Your task to perform on an android device: Open Google Image 0: 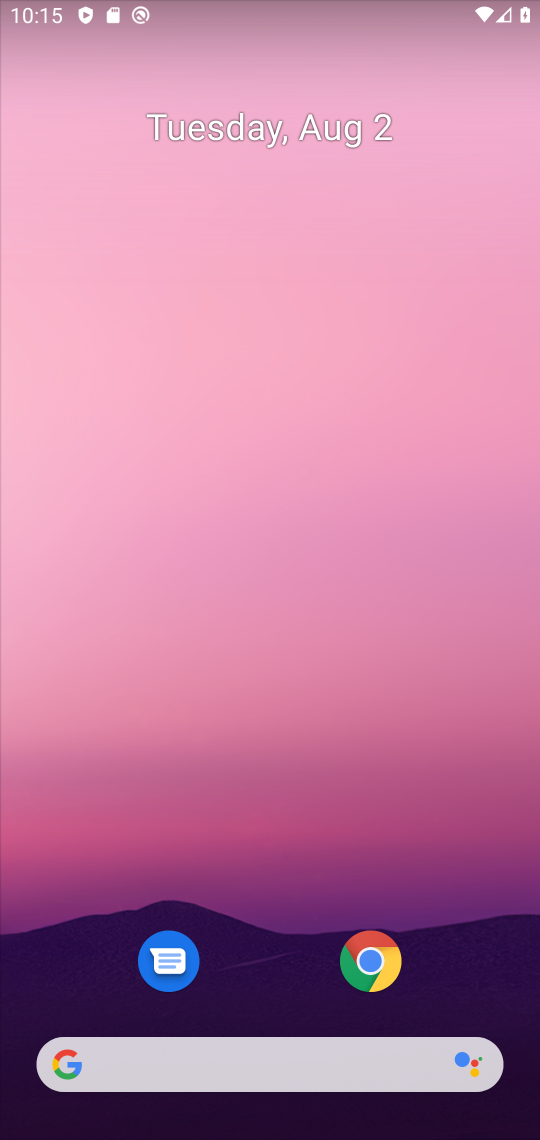
Step 0: drag from (247, 1001) to (262, 140)
Your task to perform on an android device: Open Google Image 1: 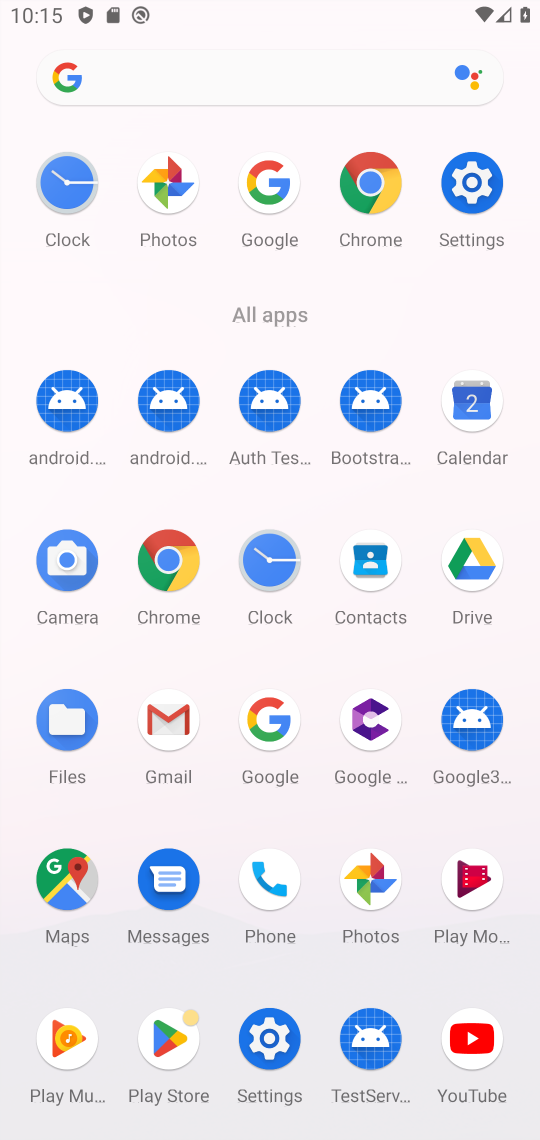
Step 1: click (267, 710)
Your task to perform on an android device: Open Google Image 2: 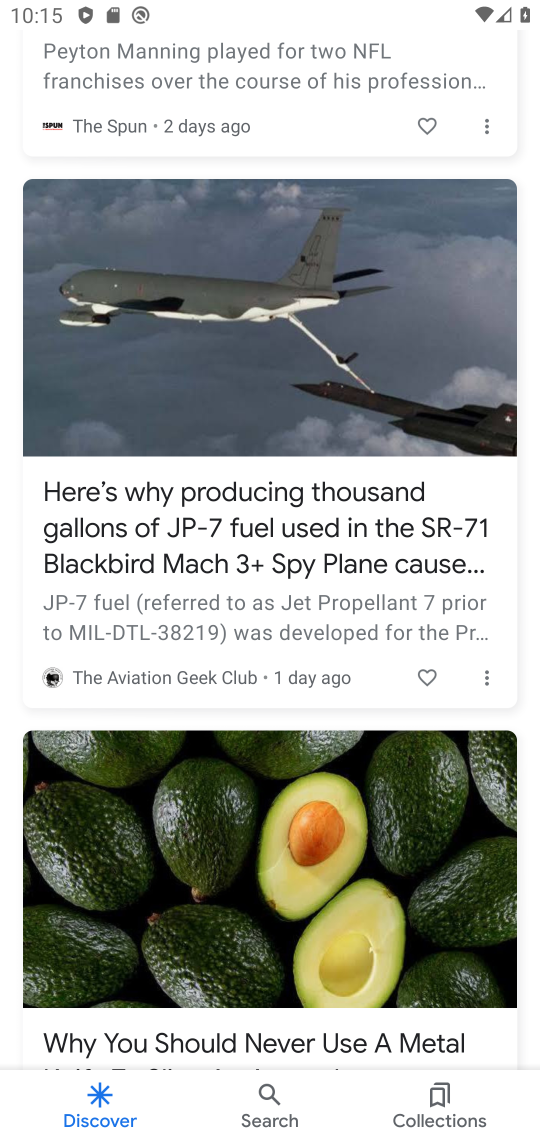
Step 2: click (261, 1101)
Your task to perform on an android device: Open Google Image 3: 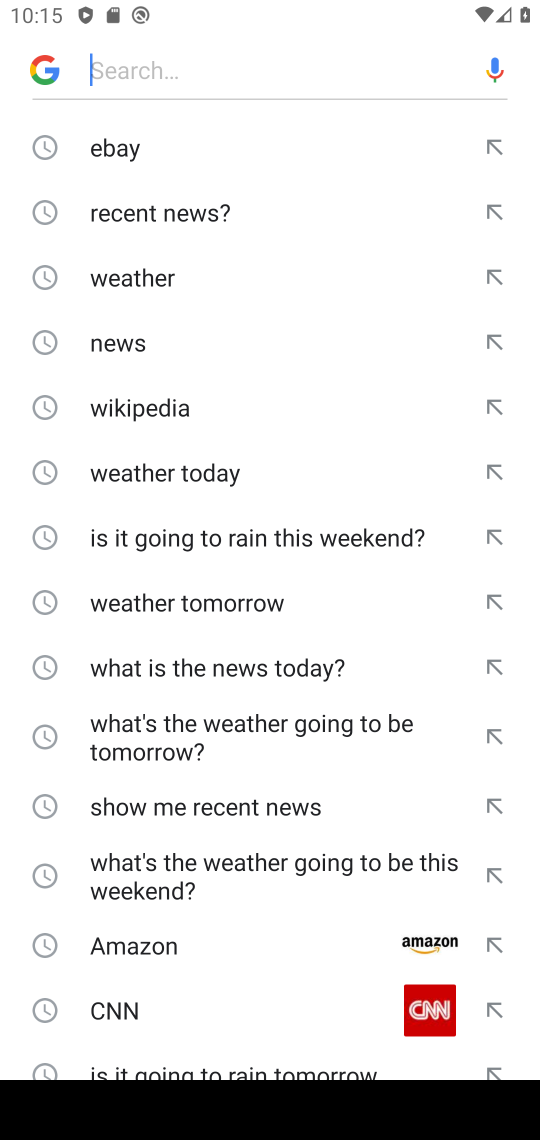
Step 3: press back button
Your task to perform on an android device: Open Google Image 4: 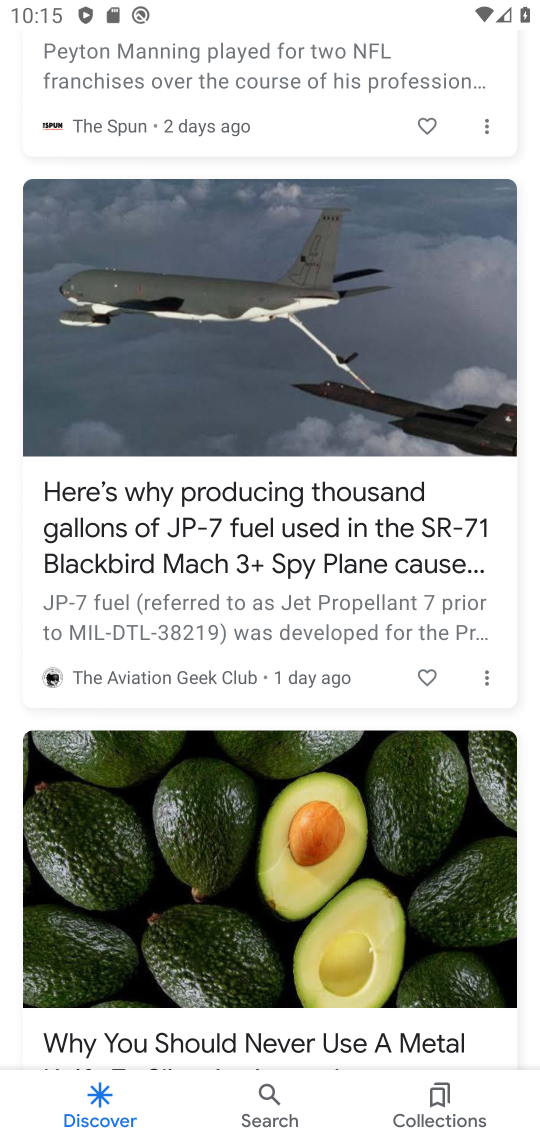
Step 4: click (432, 1091)
Your task to perform on an android device: Open Google Image 5: 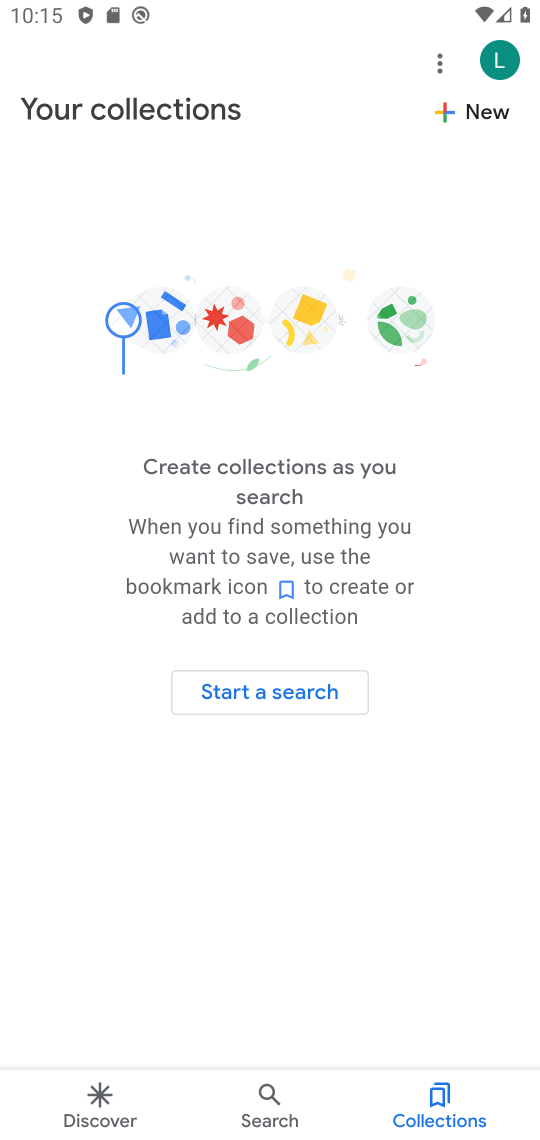
Step 5: task complete